Your task to perform on an android device: toggle data saver in the chrome app Image 0: 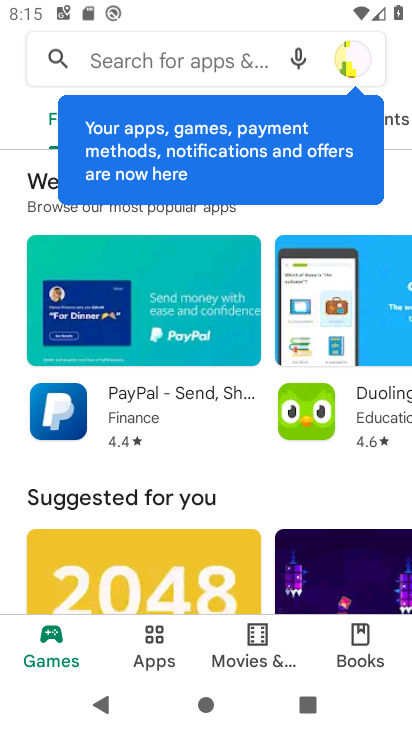
Step 0: press home button
Your task to perform on an android device: toggle data saver in the chrome app Image 1: 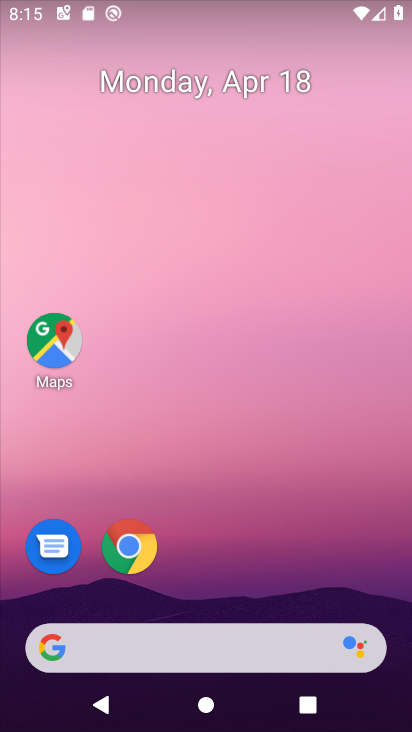
Step 1: click (145, 556)
Your task to perform on an android device: toggle data saver in the chrome app Image 2: 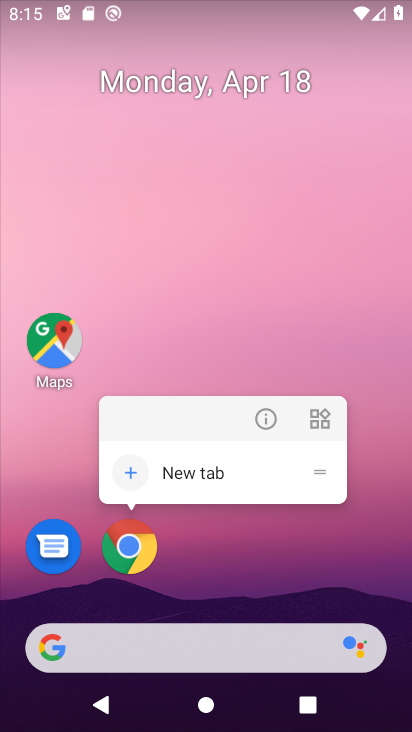
Step 2: click (145, 556)
Your task to perform on an android device: toggle data saver in the chrome app Image 3: 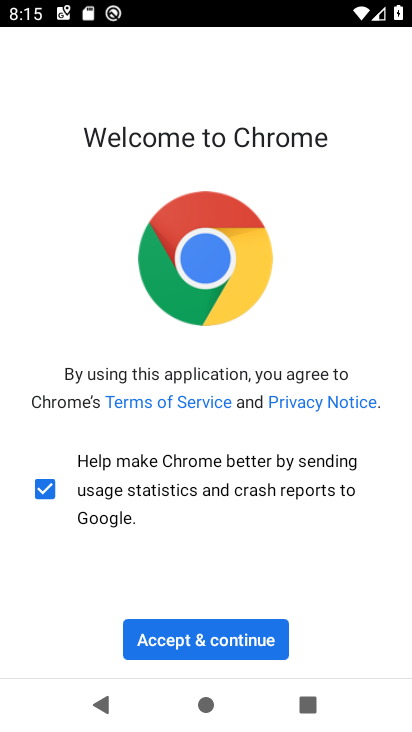
Step 3: click (249, 657)
Your task to perform on an android device: toggle data saver in the chrome app Image 4: 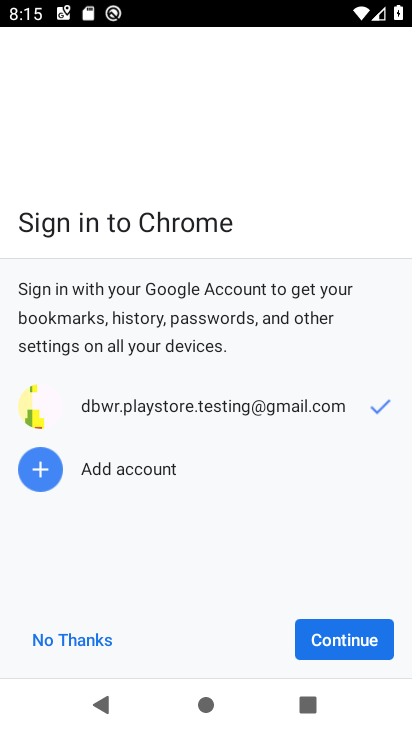
Step 4: click (369, 644)
Your task to perform on an android device: toggle data saver in the chrome app Image 5: 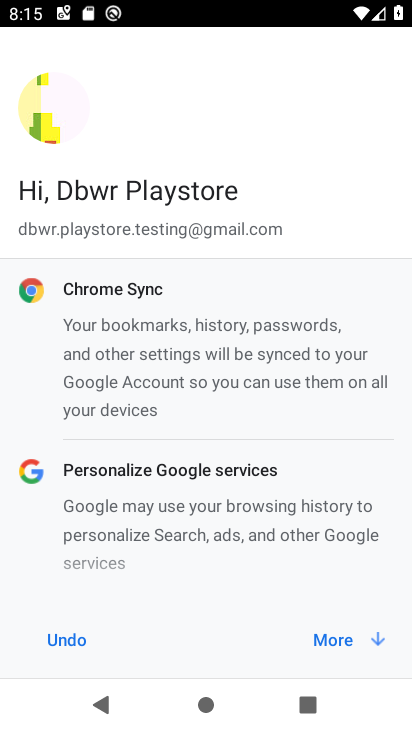
Step 5: click (348, 642)
Your task to perform on an android device: toggle data saver in the chrome app Image 6: 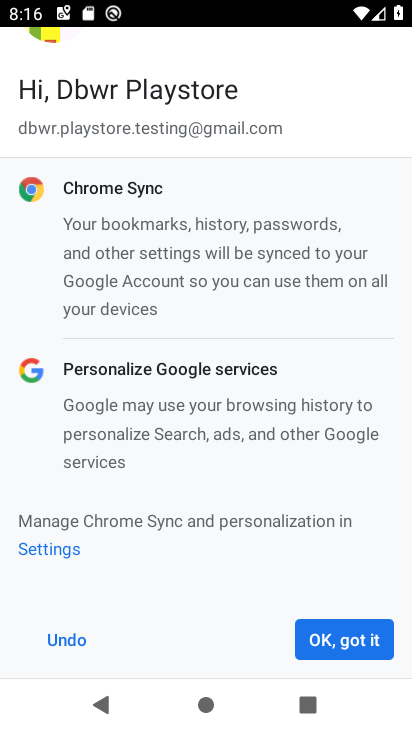
Step 6: click (348, 642)
Your task to perform on an android device: toggle data saver in the chrome app Image 7: 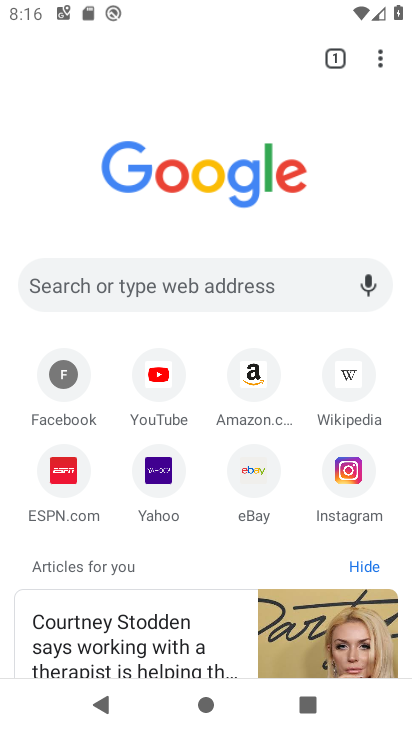
Step 7: click (387, 78)
Your task to perform on an android device: toggle data saver in the chrome app Image 8: 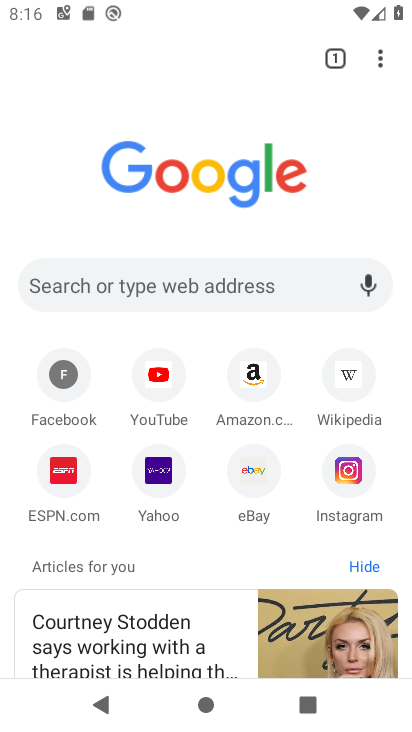
Step 8: drag from (387, 78) to (246, 494)
Your task to perform on an android device: toggle data saver in the chrome app Image 9: 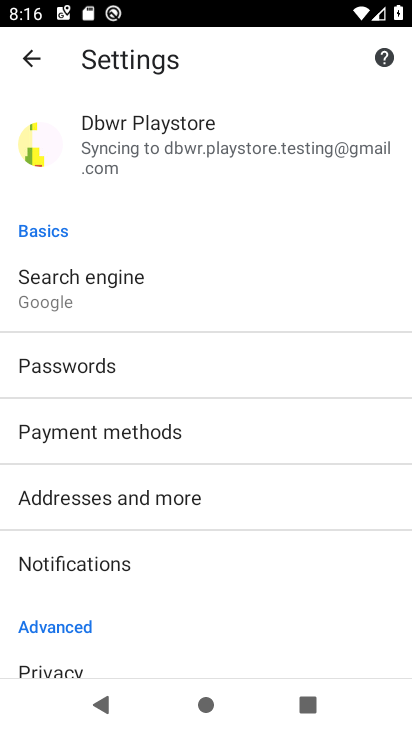
Step 9: drag from (279, 420) to (267, 189)
Your task to perform on an android device: toggle data saver in the chrome app Image 10: 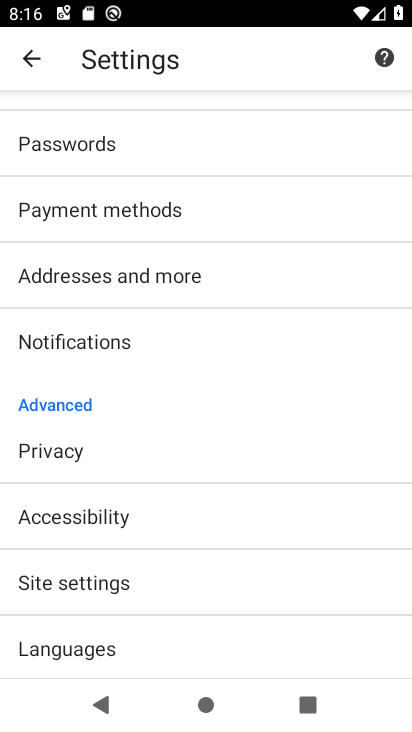
Step 10: drag from (223, 645) to (234, 163)
Your task to perform on an android device: toggle data saver in the chrome app Image 11: 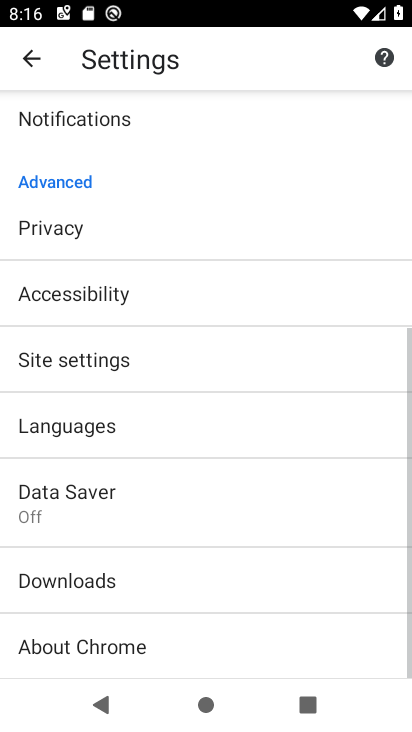
Step 11: click (245, 488)
Your task to perform on an android device: toggle data saver in the chrome app Image 12: 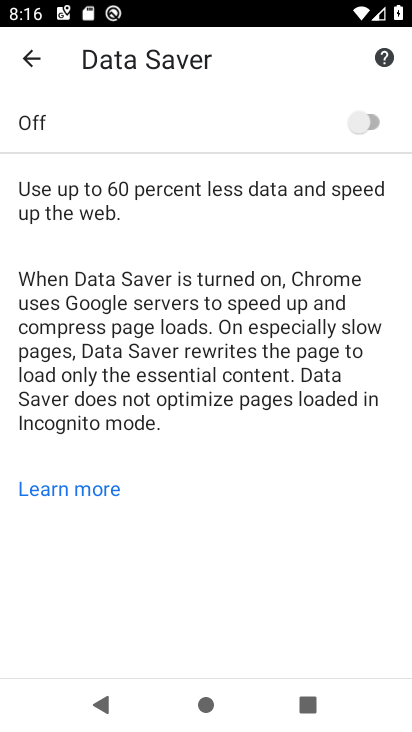
Step 12: click (368, 125)
Your task to perform on an android device: toggle data saver in the chrome app Image 13: 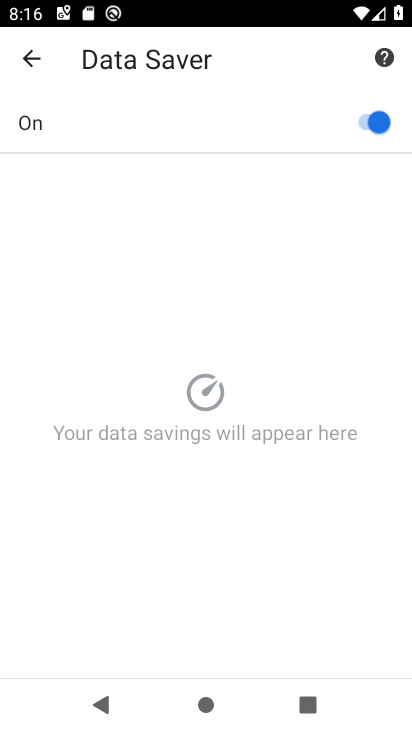
Step 13: task complete